Your task to perform on an android device: turn on the 12-hour format for clock Image 0: 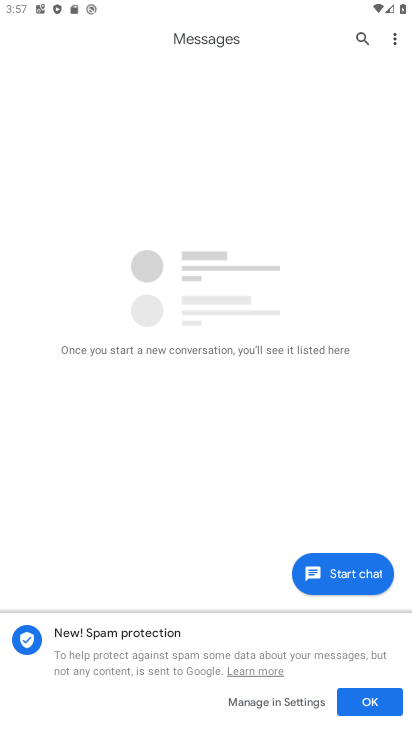
Step 0: press home button
Your task to perform on an android device: turn on the 12-hour format for clock Image 1: 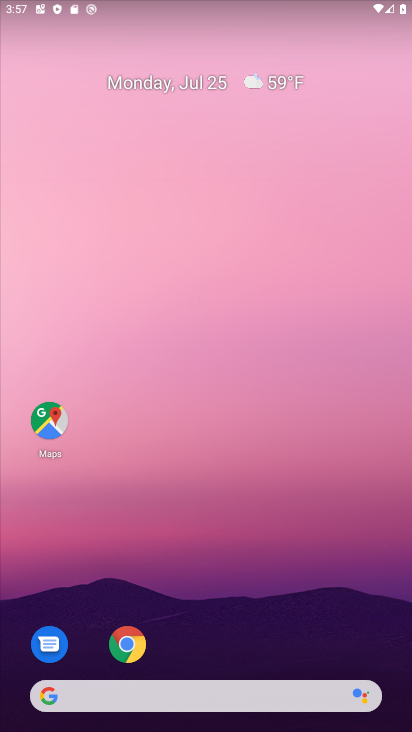
Step 1: drag from (179, 681) to (105, 6)
Your task to perform on an android device: turn on the 12-hour format for clock Image 2: 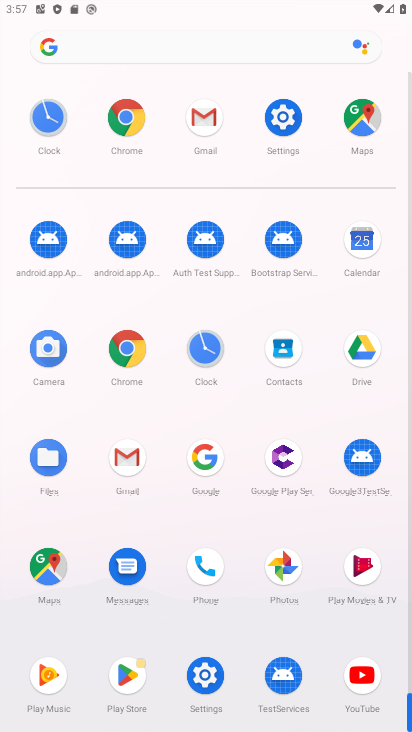
Step 2: click (210, 346)
Your task to perform on an android device: turn on the 12-hour format for clock Image 3: 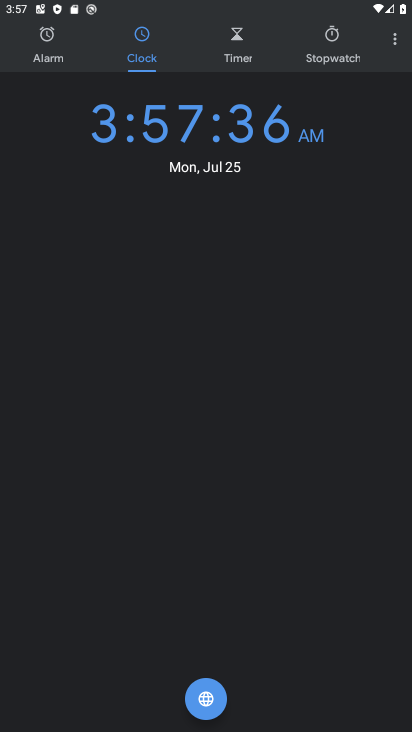
Step 3: click (395, 41)
Your task to perform on an android device: turn on the 12-hour format for clock Image 4: 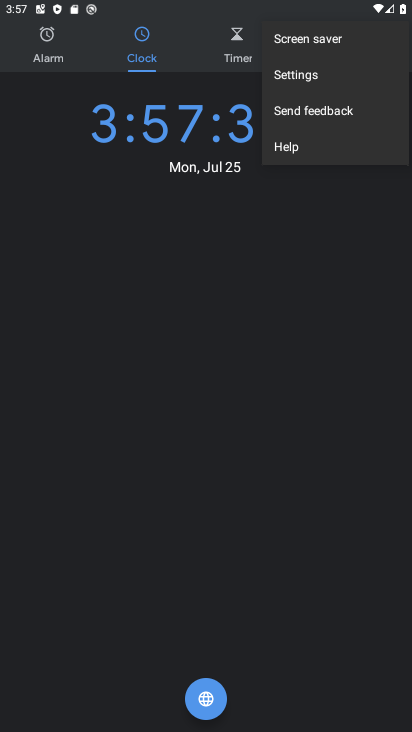
Step 4: click (281, 69)
Your task to perform on an android device: turn on the 12-hour format for clock Image 5: 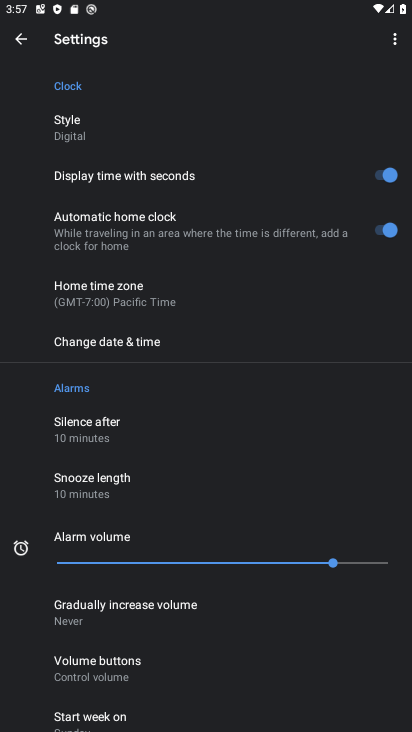
Step 5: click (82, 349)
Your task to perform on an android device: turn on the 12-hour format for clock Image 6: 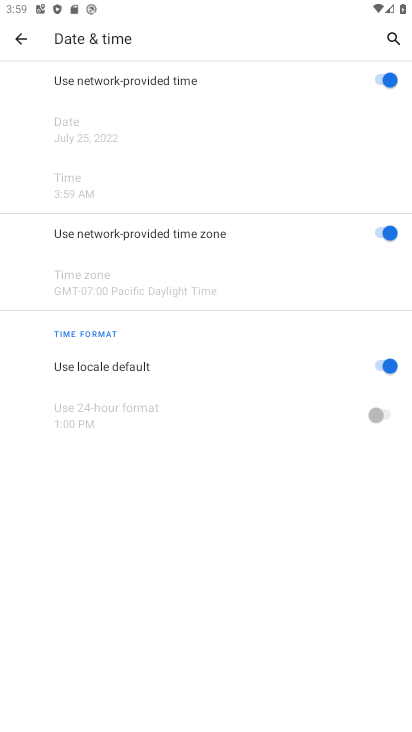
Step 6: task complete